Your task to perform on an android device: open the mobile data screen to see how much data has been used Image 0: 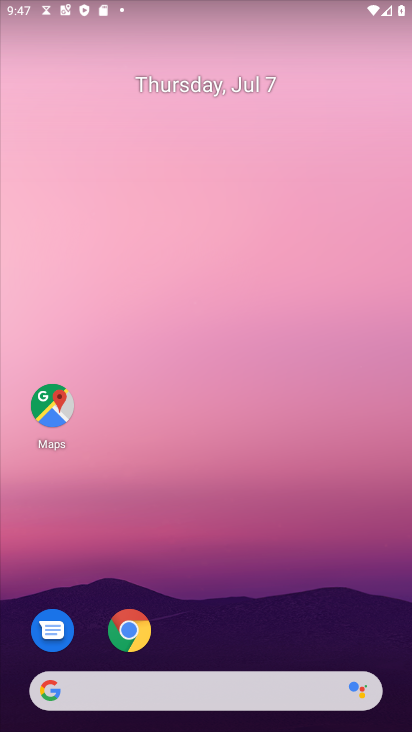
Step 0: drag from (197, 664) to (241, 288)
Your task to perform on an android device: open the mobile data screen to see how much data has been used Image 1: 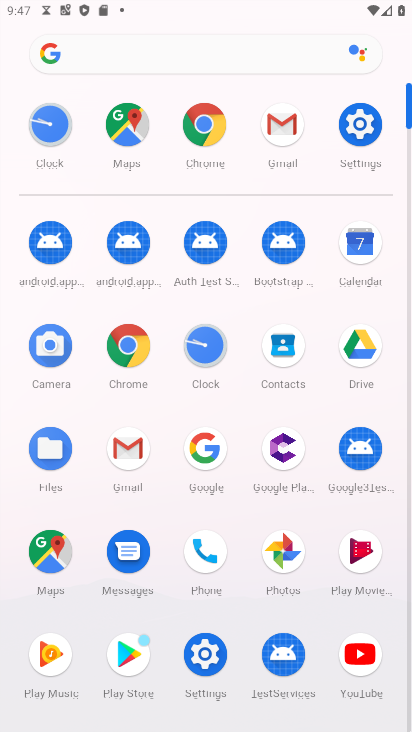
Step 1: click (359, 132)
Your task to perform on an android device: open the mobile data screen to see how much data has been used Image 2: 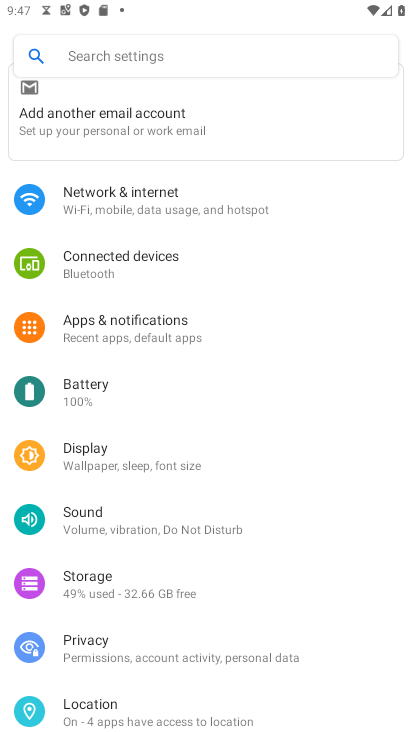
Step 2: click (177, 194)
Your task to perform on an android device: open the mobile data screen to see how much data has been used Image 3: 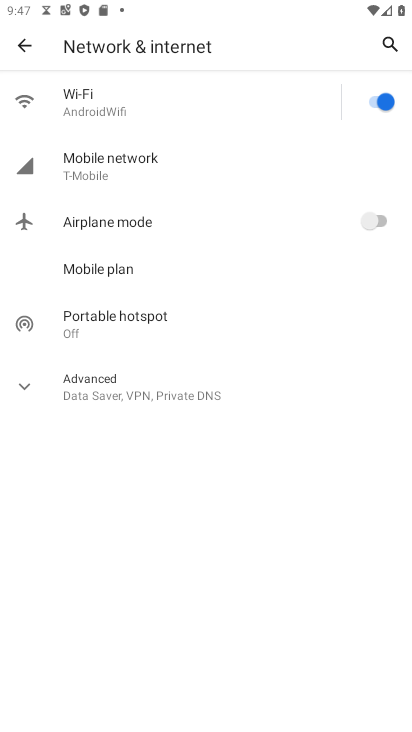
Step 3: click (116, 162)
Your task to perform on an android device: open the mobile data screen to see how much data has been used Image 4: 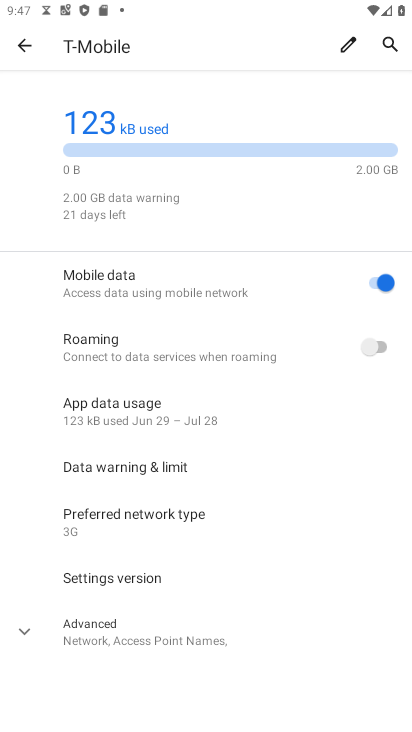
Step 4: click (105, 629)
Your task to perform on an android device: open the mobile data screen to see how much data has been used Image 5: 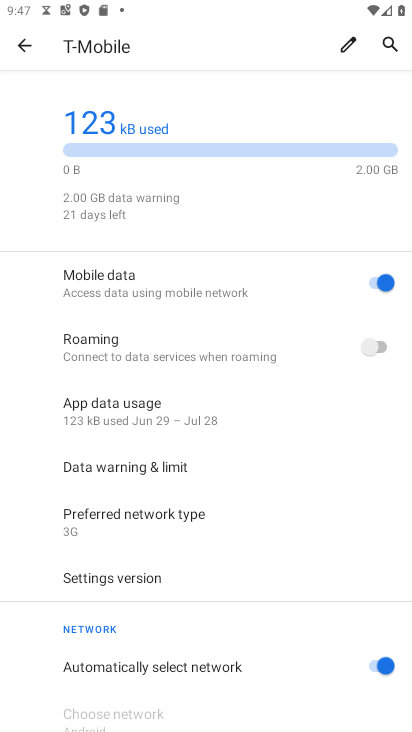
Step 5: task complete